Your task to perform on an android device: open the mobile data screen to see how much data has been used Image 0: 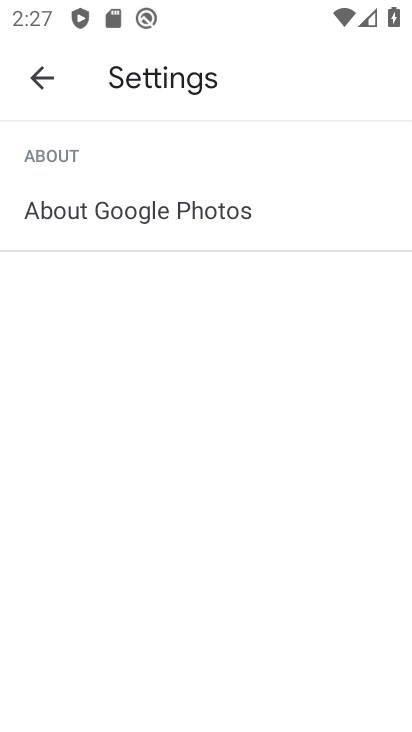
Step 0: press back button
Your task to perform on an android device: open the mobile data screen to see how much data has been used Image 1: 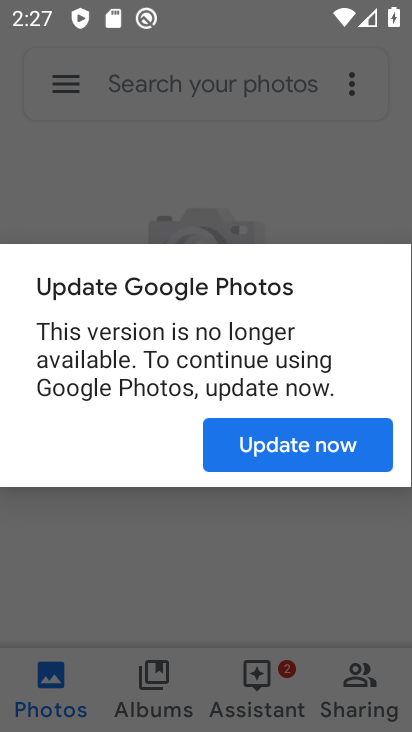
Step 1: press home button
Your task to perform on an android device: open the mobile data screen to see how much data has been used Image 2: 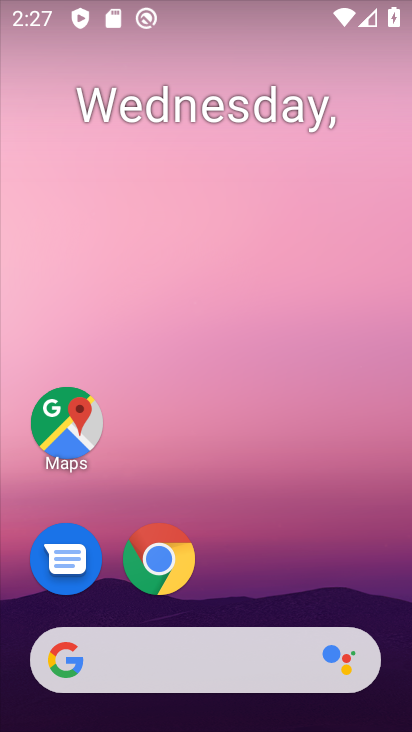
Step 2: click (155, 554)
Your task to perform on an android device: open the mobile data screen to see how much data has been used Image 3: 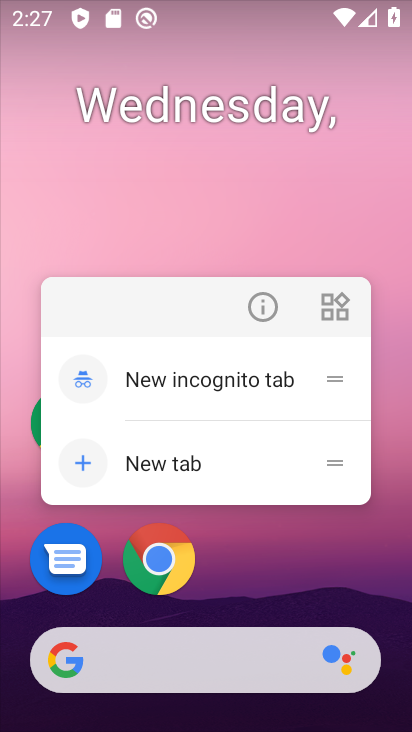
Step 3: click (283, 576)
Your task to perform on an android device: open the mobile data screen to see how much data has been used Image 4: 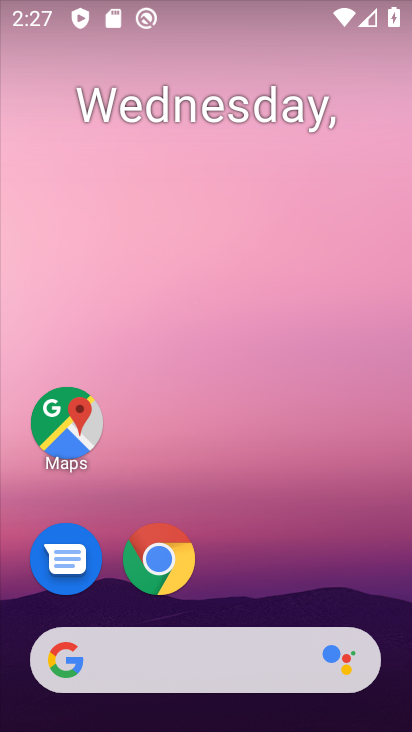
Step 4: drag from (288, 499) to (296, 27)
Your task to perform on an android device: open the mobile data screen to see how much data has been used Image 5: 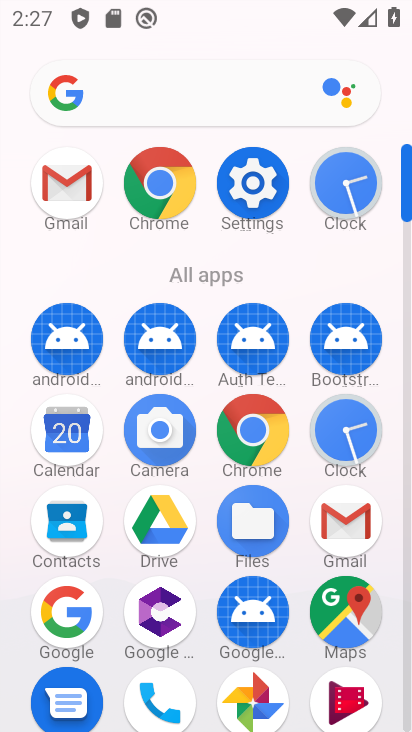
Step 5: click (246, 174)
Your task to perform on an android device: open the mobile data screen to see how much data has been used Image 6: 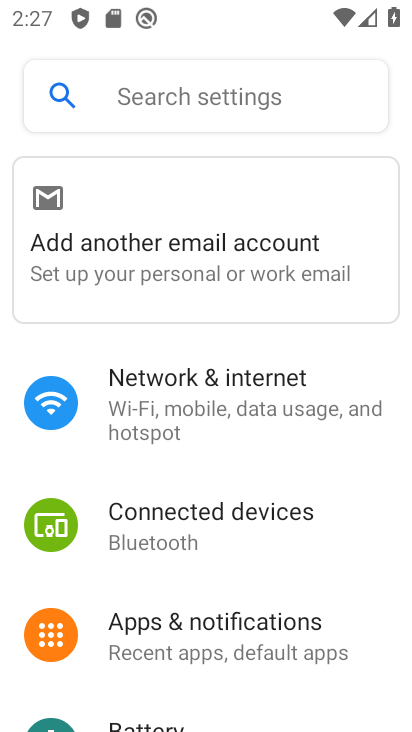
Step 6: click (242, 411)
Your task to perform on an android device: open the mobile data screen to see how much data has been used Image 7: 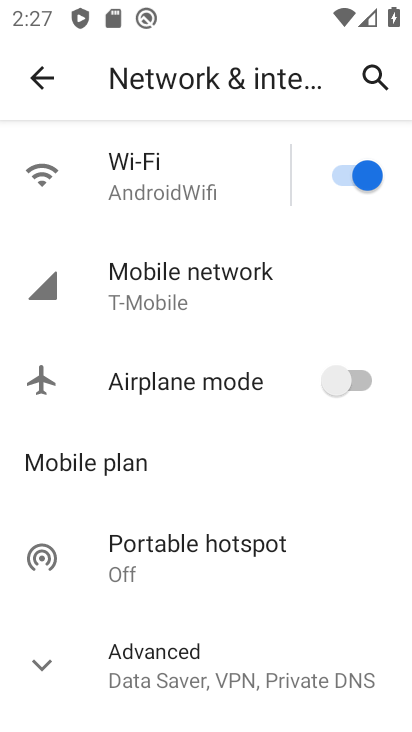
Step 7: click (177, 293)
Your task to perform on an android device: open the mobile data screen to see how much data has been used Image 8: 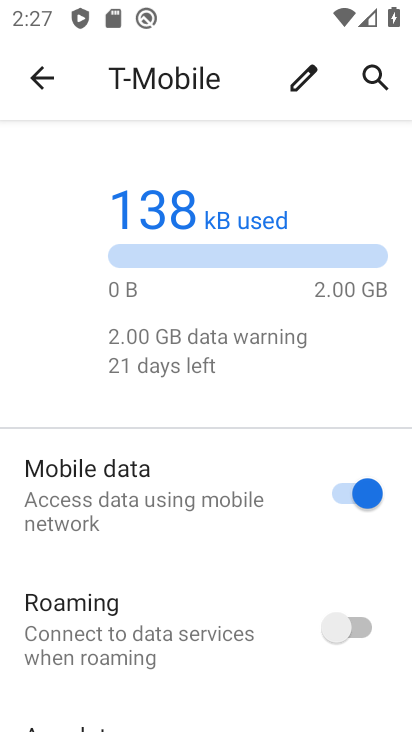
Step 8: drag from (126, 660) to (221, 219)
Your task to perform on an android device: open the mobile data screen to see how much data has been used Image 9: 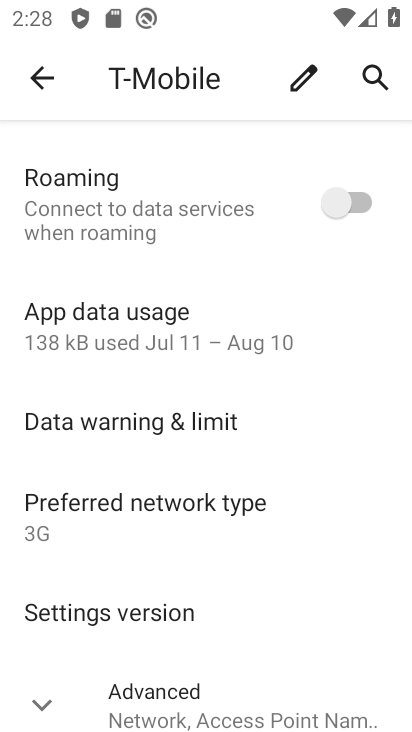
Step 9: click (110, 395)
Your task to perform on an android device: open the mobile data screen to see how much data has been used Image 10: 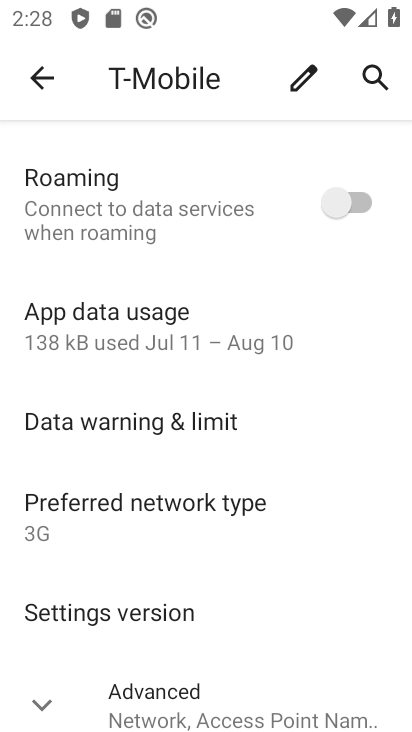
Step 10: drag from (110, 395) to (156, 305)
Your task to perform on an android device: open the mobile data screen to see how much data has been used Image 11: 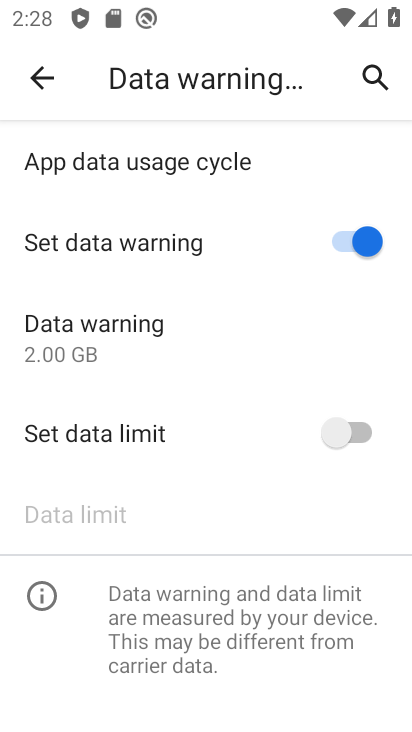
Step 11: click (36, 75)
Your task to perform on an android device: open the mobile data screen to see how much data has been used Image 12: 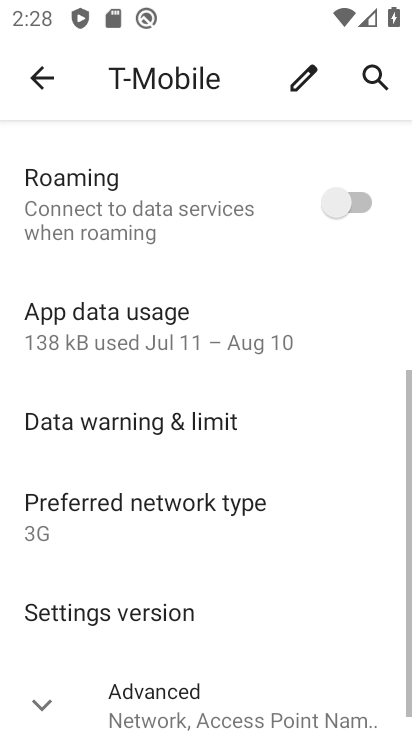
Step 12: click (198, 327)
Your task to perform on an android device: open the mobile data screen to see how much data has been used Image 13: 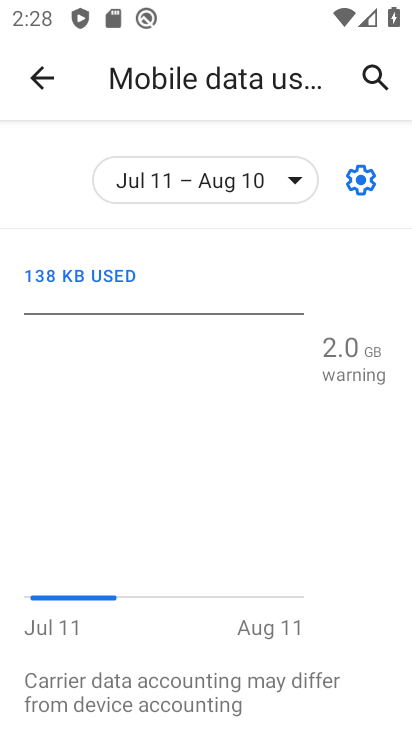
Step 13: task complete